Your task to perform on an android device: visit the assistant section in the google photos Image 0: 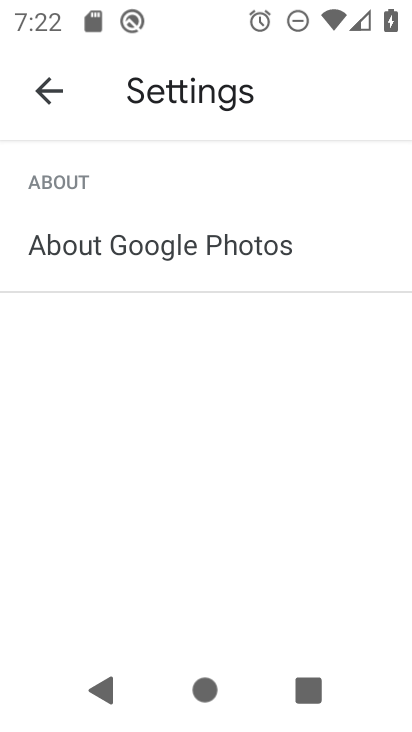
Step 0: press home button
Your task to perform on an android device: visit the assistant section in the google photos Image 1: 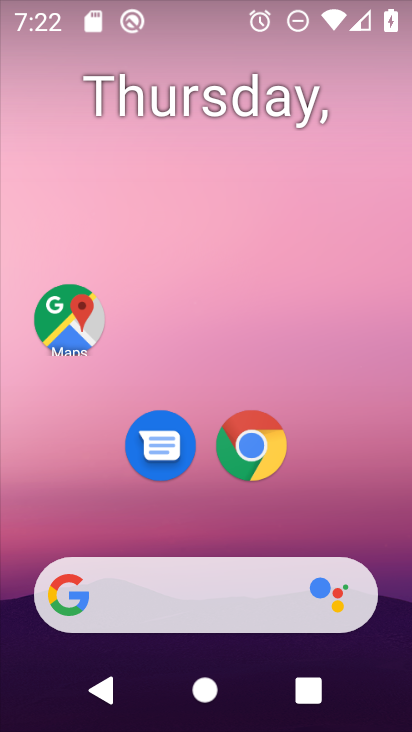
Step 1: drag from (315, 506) to (234, 60)
Your task to perform on an android device: visit the assistant section in the google photos Image 2: 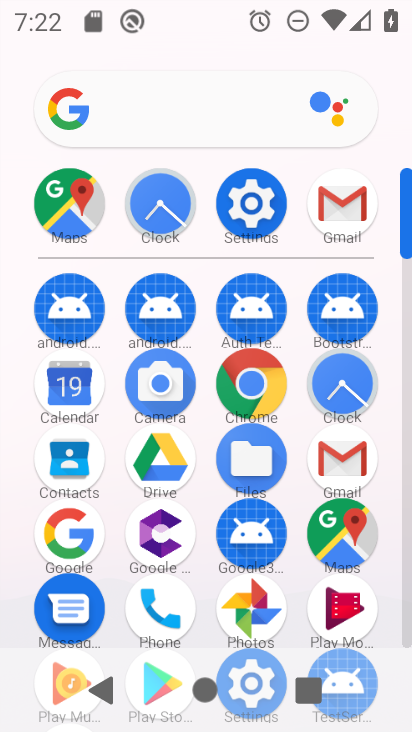
Step 2: click (246, 597)
Your task to perform on an android device: visit the assistant section in the google photos Image 3: 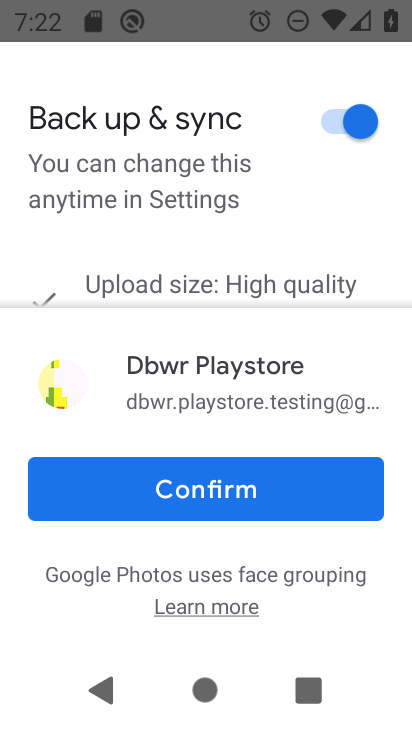
Step 3: click (217, 496)
Your task to perform on an android device: visit the assistant section in the google photos Image 4: 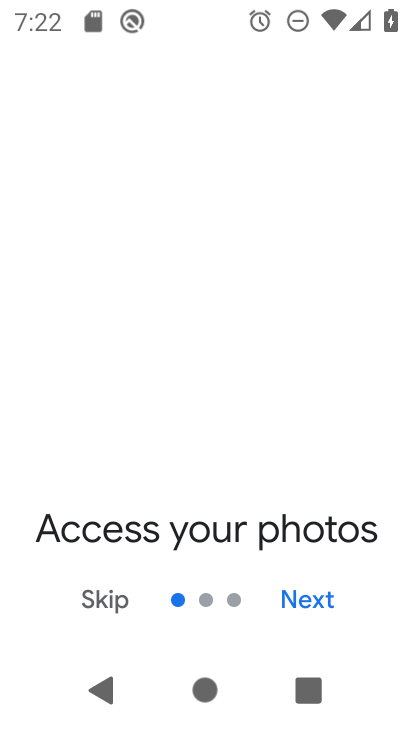
Step 4: click (295, 590)
Your task to perform on an android device: visit the assistant section in the google photos Image 5: 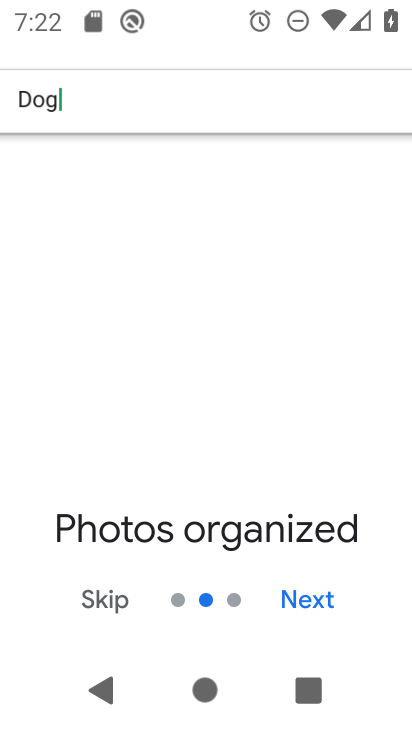
Step 5: click (295, 590)
Your task to perform on an android device: visit the assistant section in the google photos Image 6: 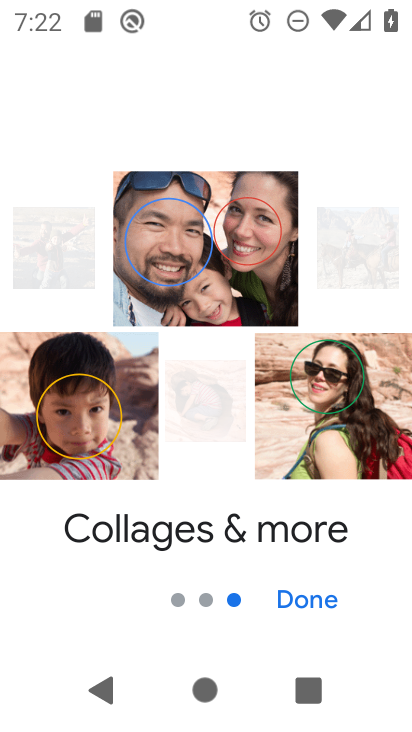
Step 6: click (295, 590)
Your task to perform on an android device: visit the assistant section in the google photos Image 7: 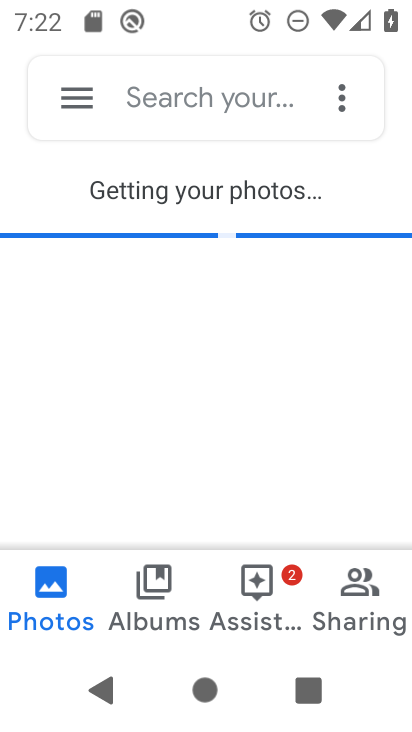
Step 7: click (234, 592)
Your task to perform on an android device: visit the assistant section in the google photos Image 8: 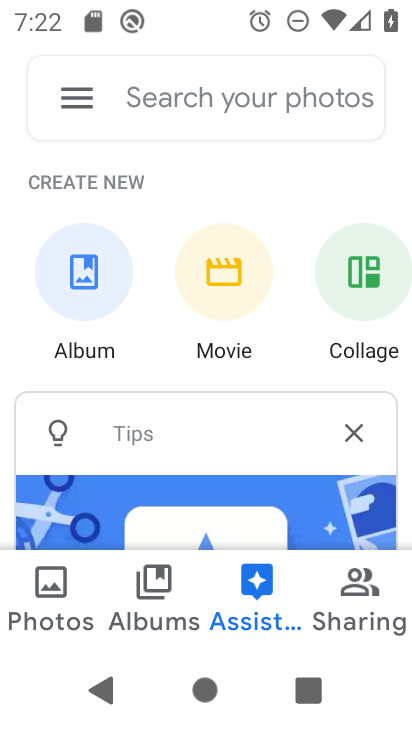
Step 8: task complete